Your task to perform on an android device: Go to wifi settings Image 0: 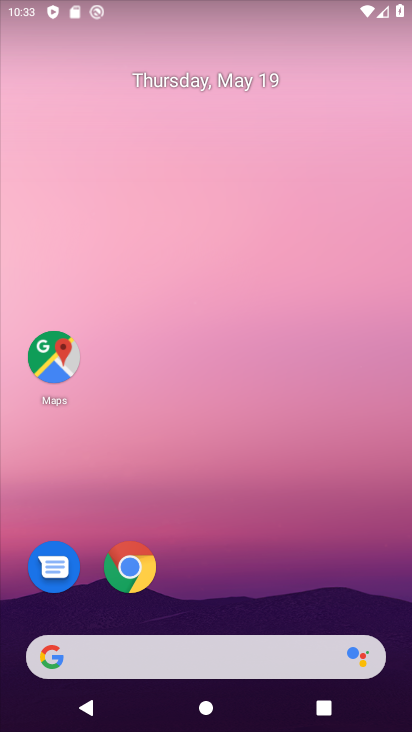
Step 0: drag from (394, 615) to (294, 2)
Your task to perform on an android device: Go to wifi settings Image 1: 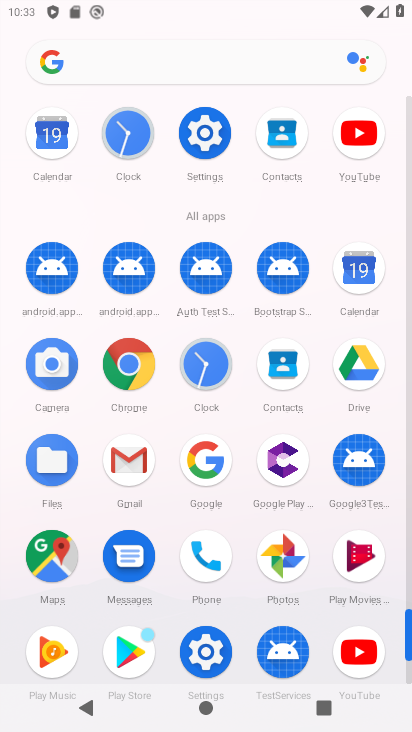
Step 1: click (205, 652)
Your task to perform on an android device: Go to wifi settings Image 2: 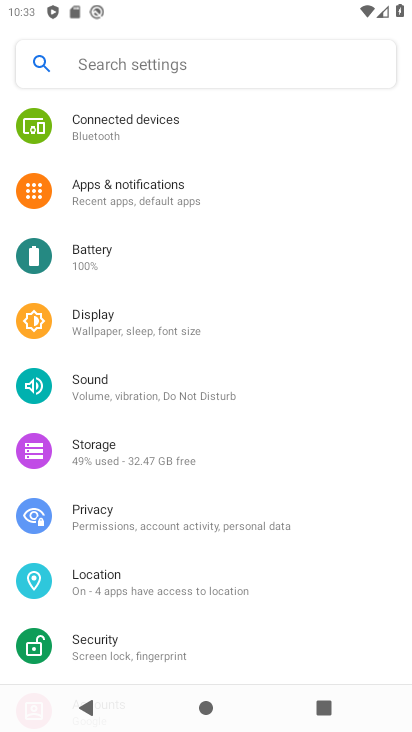
Step 2: drag from (297, 177) to (334, 567)
Your task to perform on an android device: Go to wifi settings Image 3: 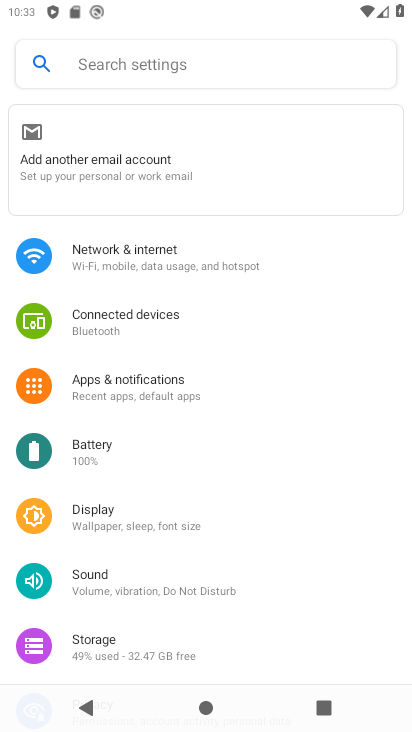
Step 3: click (116, 248)
Your task to perform on an android device: Go to wifi settings Image 4: 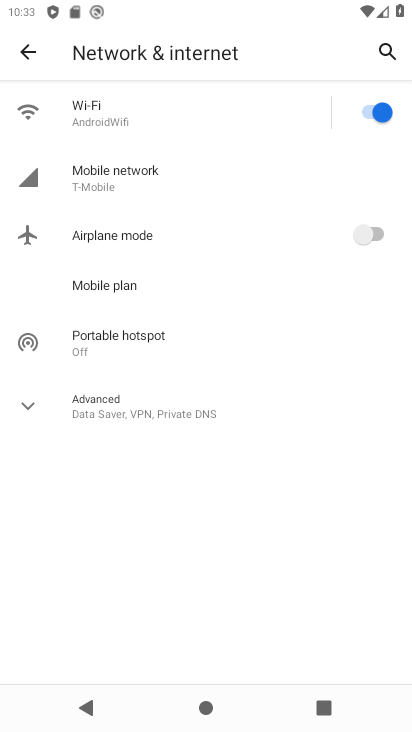
Step 4: click (77, 105)
Your task to perform on an android device: Go to wifi settings Image 5: 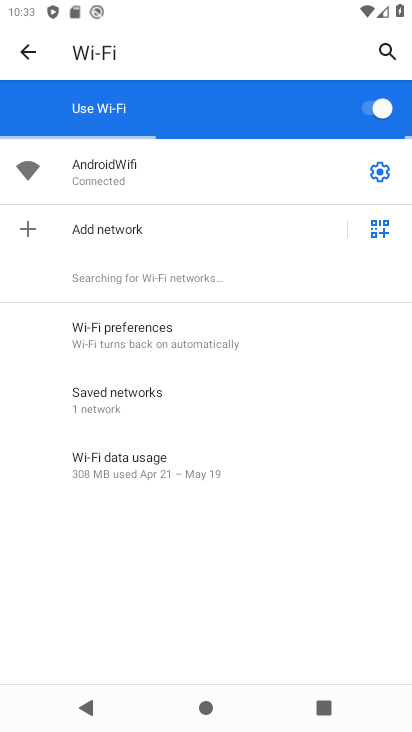
Step 5: click (380, 173)
Your task to perform on an android device: Go to wifi settings Image 6: 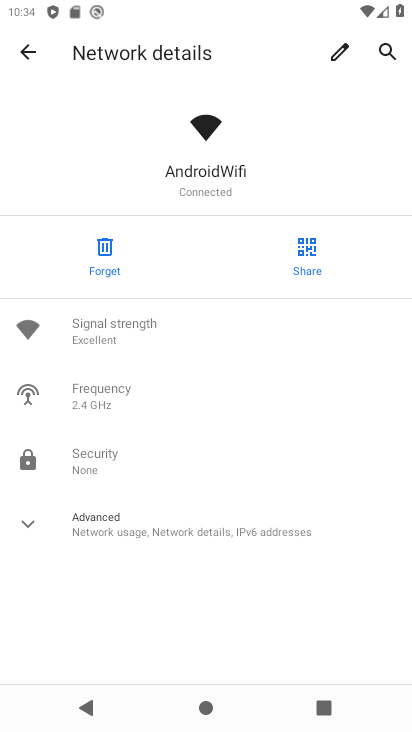
Step 6: click (22, 524)
Your task to perform on an android device: Go to wifi settings Image 7: 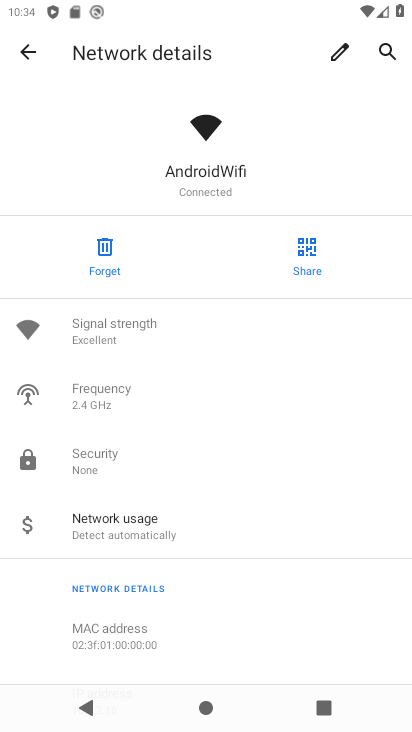
Step 7: task complete